Your task to perform on an android device: turn off location history Image 0: 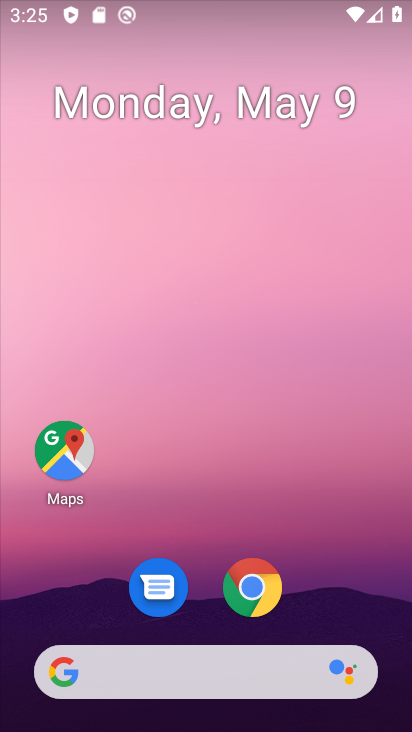
Step 0: drag from (392, 638) to (374, 89)
Your task to perform on an android device: turn off location history Image 1: 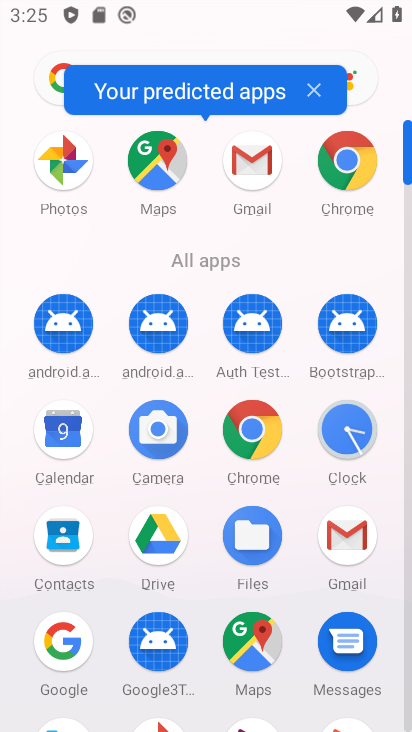
Step 1: click (411, 119)
Your task to perform on an android device: turn off location history Image 2: 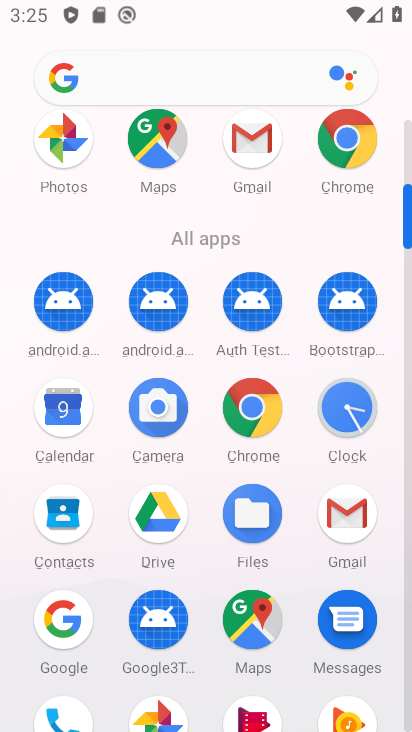
Step 2: drag from (408, 133) to (411, 355)
Your task to perform on an android device: turn off location history Image 3: 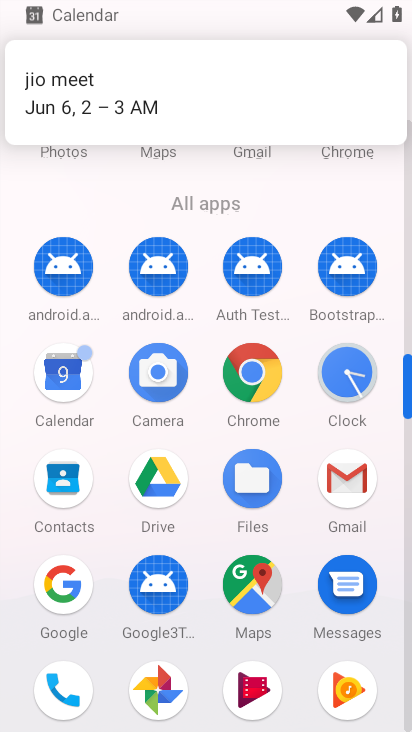
Step 3: drag from (409, 321) to (409, 261)
Your task to perform on an android device: turn off location history Image 4: 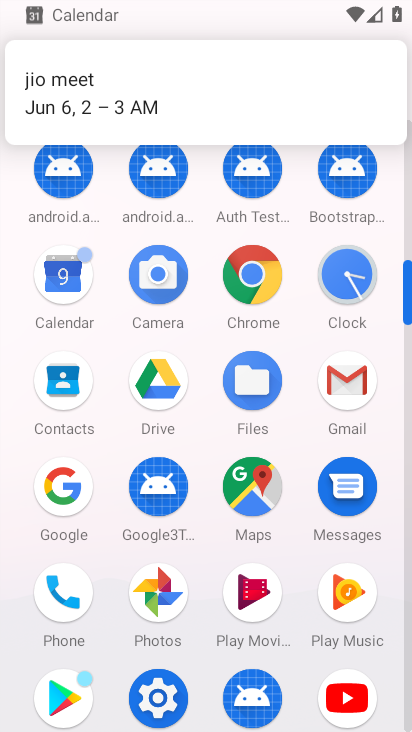
Step 4: click (152, 687)
Your task to perform on an android device: turn off location history Image 5: 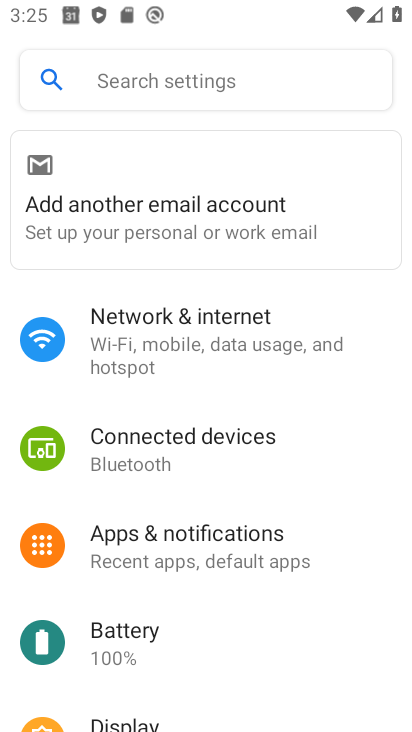
Step 5: drag from (385, 573) to (377, 410)
Your task to perform on an android device: turn off location history Image 6: 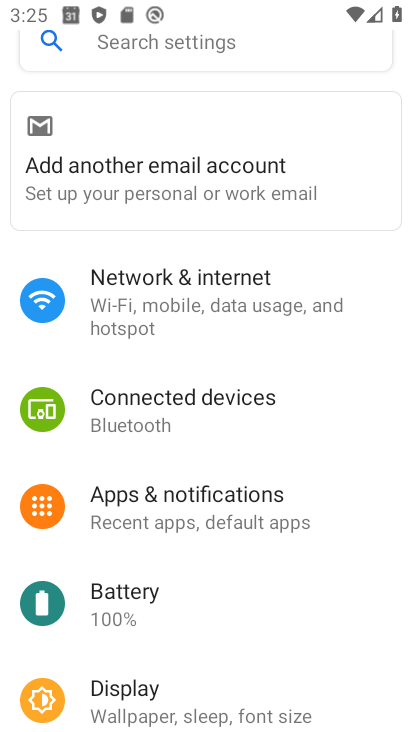
Step 6: drag from (351, 663) to (372, 388)
Your task to perform on an android device: turn off location history Image 7: 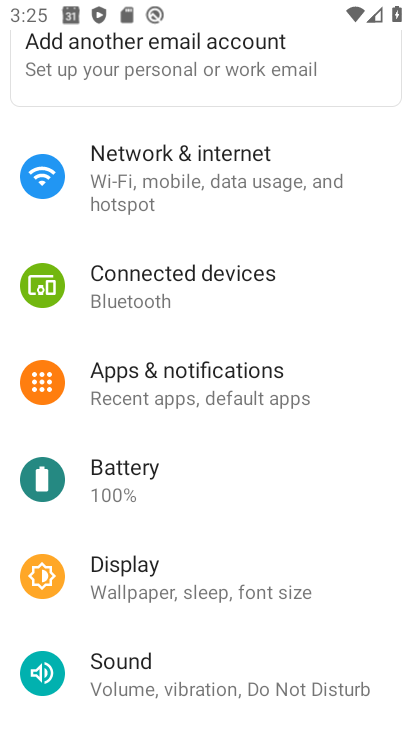
Step 7: drag from (395, 658) to (410, 302)
Your task to perform on an android device: turn off location history Image 8: 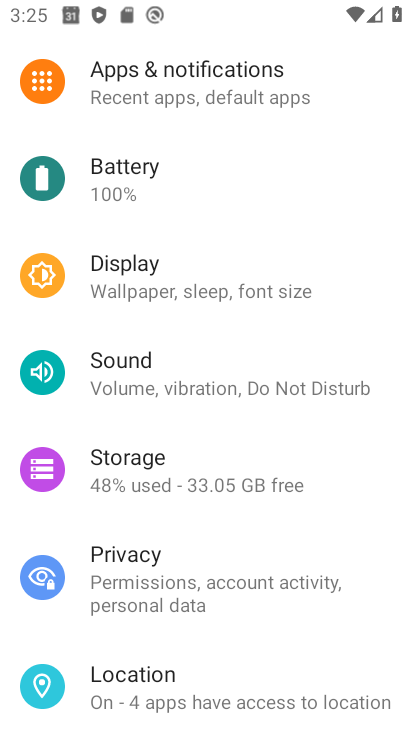
Step 8: click (100, 681)
Your task to perform on an android device: turn off location history Image 9: 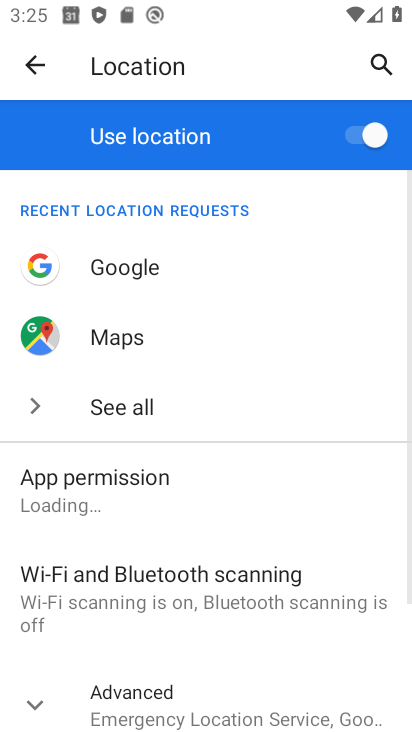
Step 9: click (27, 603)
Your task to perform on an android device: turn off location history Image 10: 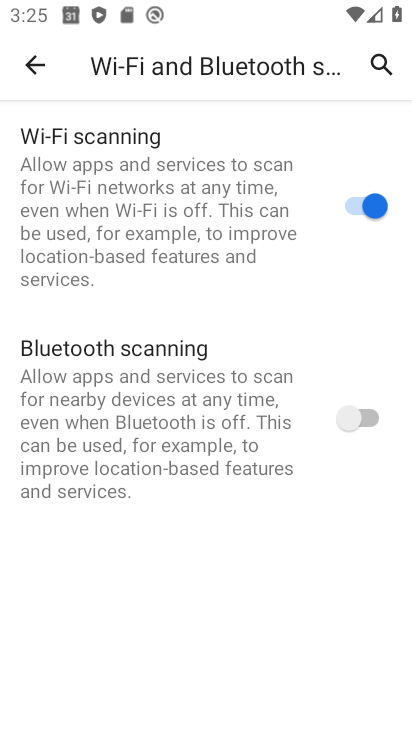
Step 10: press back button
Your task to perform on an android device: turn off location history Image 11: 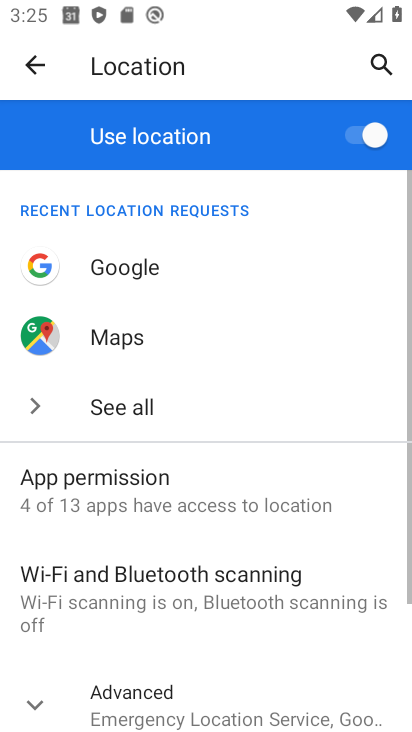
Step 11: click (119, 703)
Your task to perform on an android device: turn off location history Image 12: 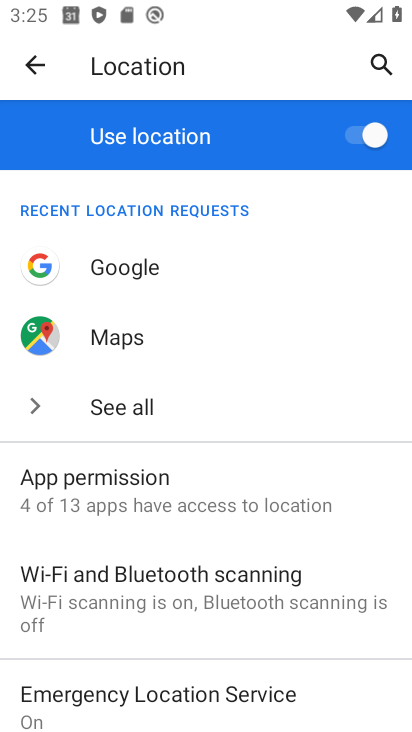
Step 12: drag from (368, 702) to (392, 343)
Your task to perform on an android device: turn off location history Image 13: 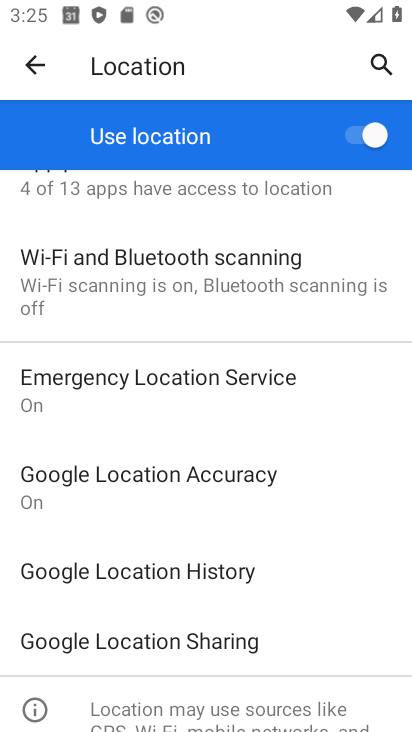
Step 13: click (125, 571)
Your task to perform on an android device: turn off location history Image 14: 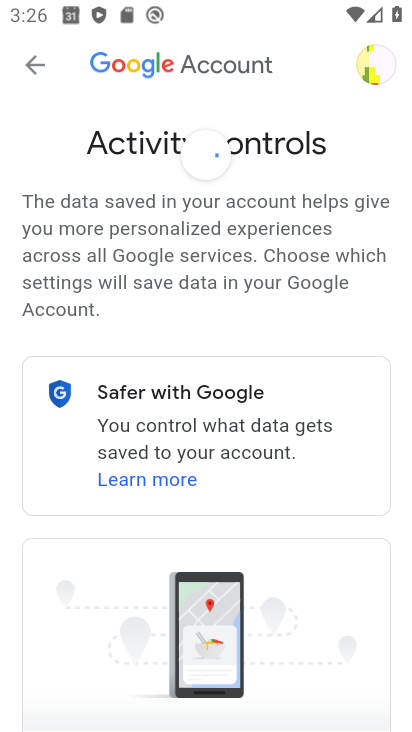
Step 14: drag from (304, 623) to (310, 241)
Your task to perform on an android device: turn off location history Image 15: 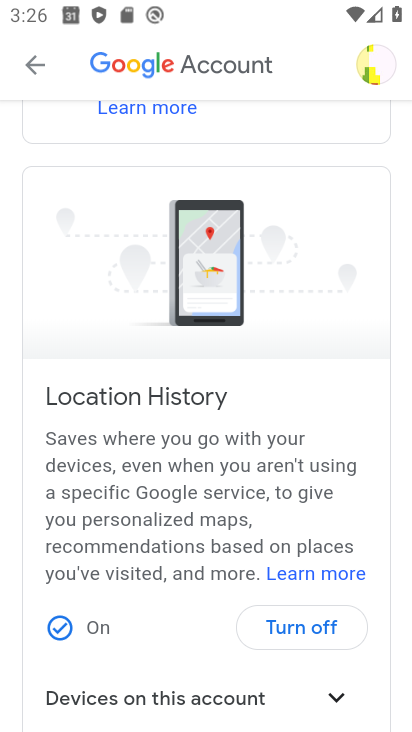
Step 15: drag from (305, 657) to (366, 305)
Your task to perform on an android device: turn off location history Image 16: 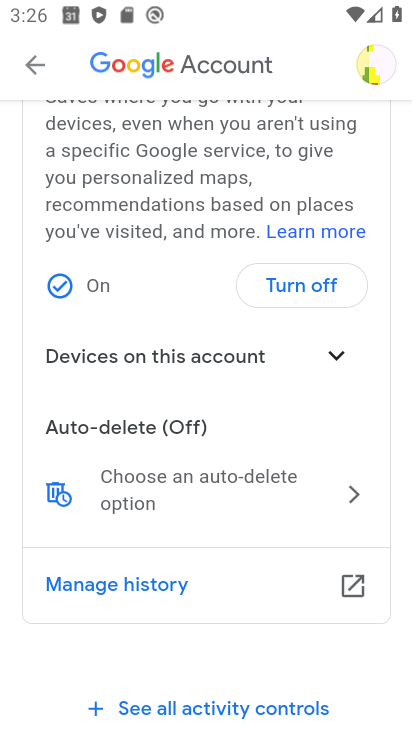
Step 16: click (325, 280)
Your task to perform on an android device: turn off location history Image 17: 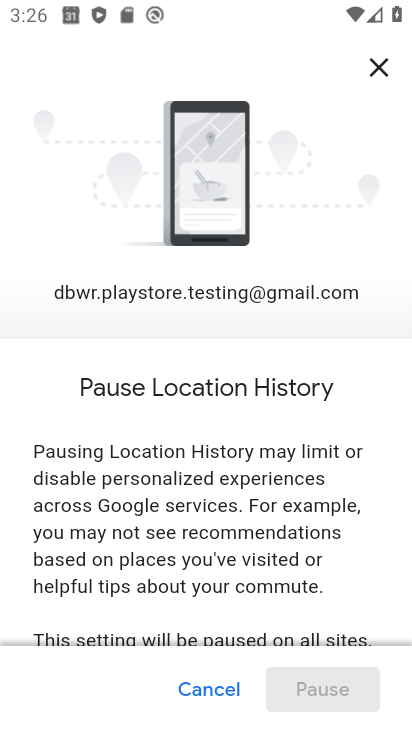
Step 17: drag from (275, 586) to (360, 271)
Your task to perform on an android device: turn off location history Image 18: 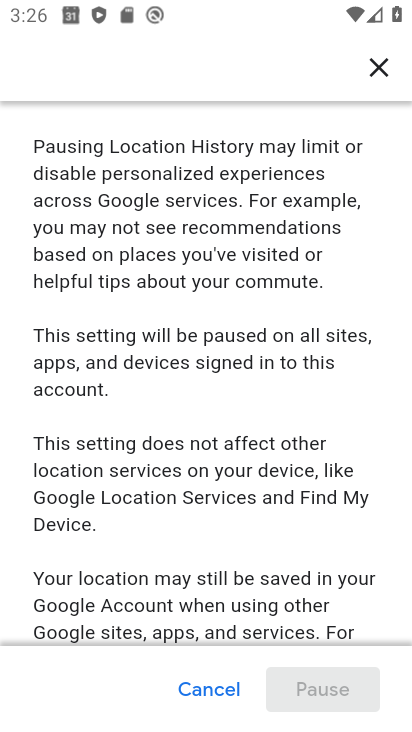
Step 18: drag from (243, 474) to (234, 344)
Your task to perform on an android device: turn off location history Image 19: 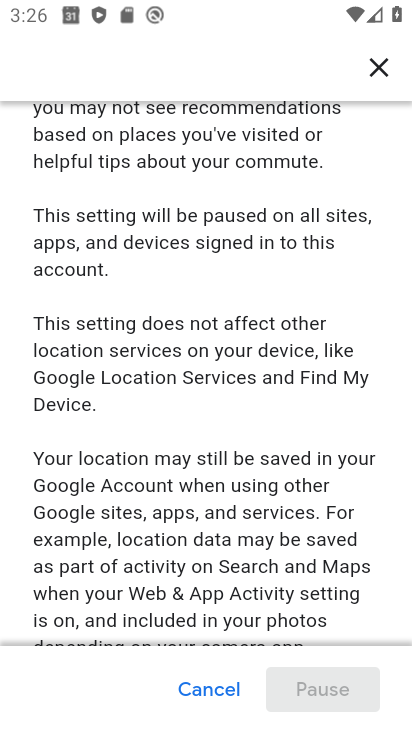
Step 19: drag from (197, 612) to (263, 223)
Your task to perform on an android device: turn off location history Image 20: 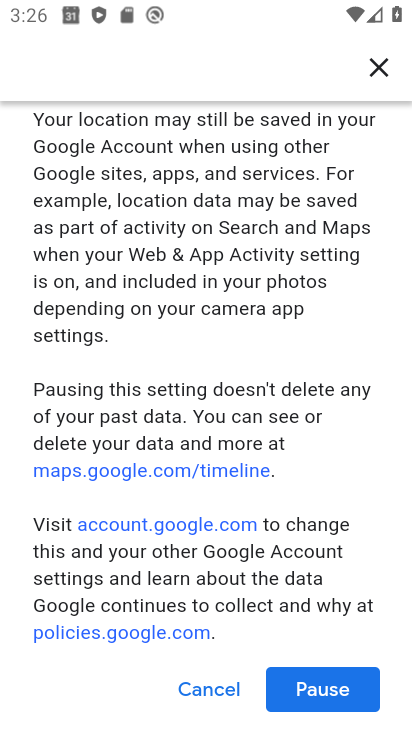
Step 20: drag from (237, 604) to (327, 176)
Your task to perform on an android device: turn off location history Image 21: 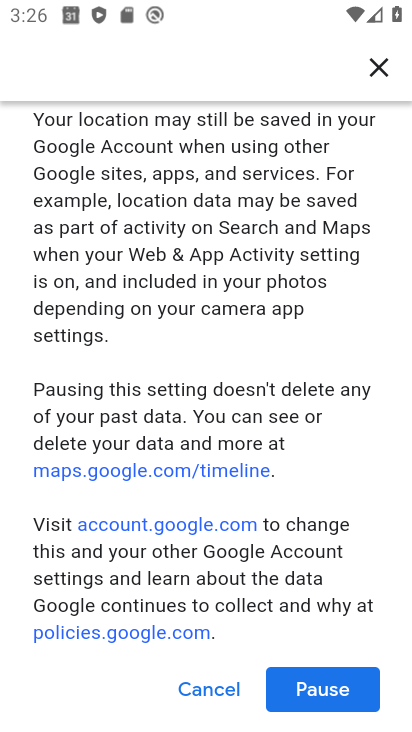
Step 21: click (326, 685)
Your task to perform on an android device: turn off location history Image 22: 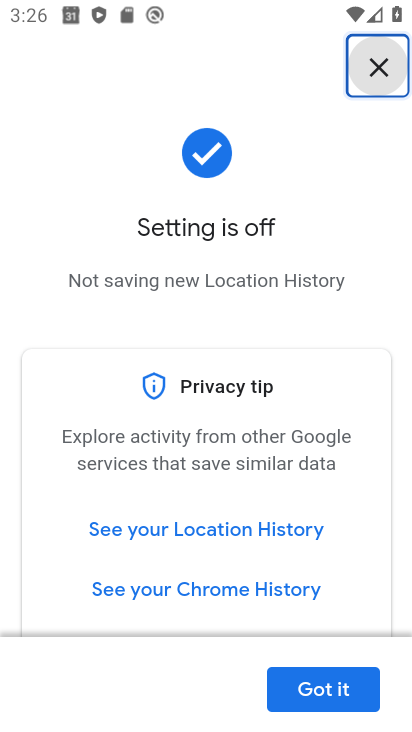
Step 22: click (324, 692)
Your task to perform on an android device: turn off location history Image 23: 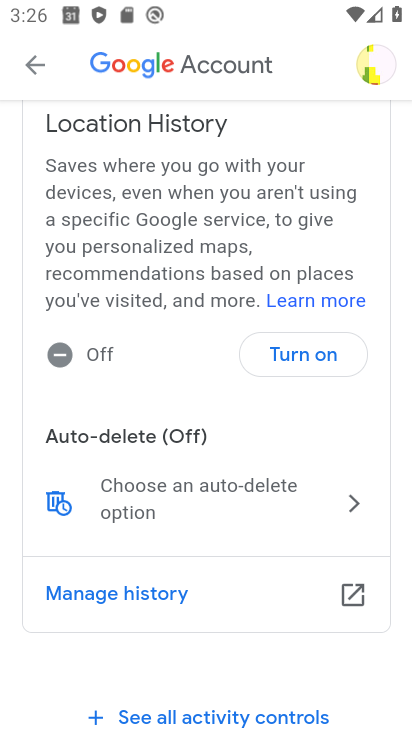
Step 23: task complete